Your task to perform on an android device: Open the map Image 0: 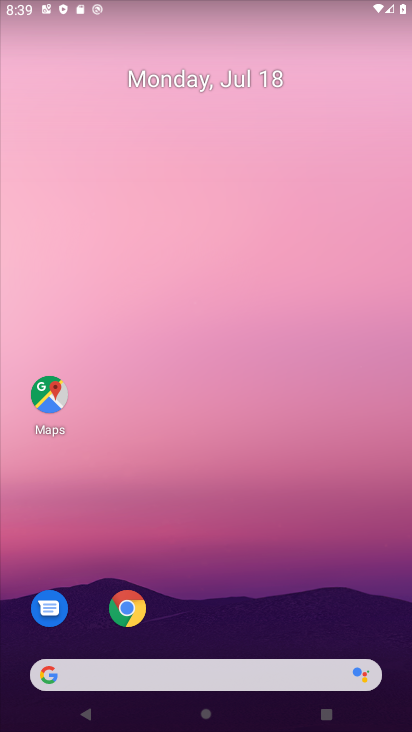
Step 0: drag from (230, 714) to (218, 130)
Your task to perform on an android device: Open the map Image 1: 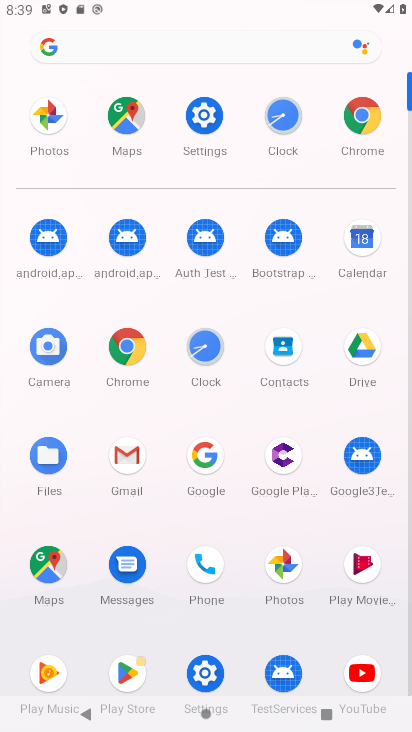
Step 1: click (56, 557)
Your task to perform on an android device: Open the map Image 2: 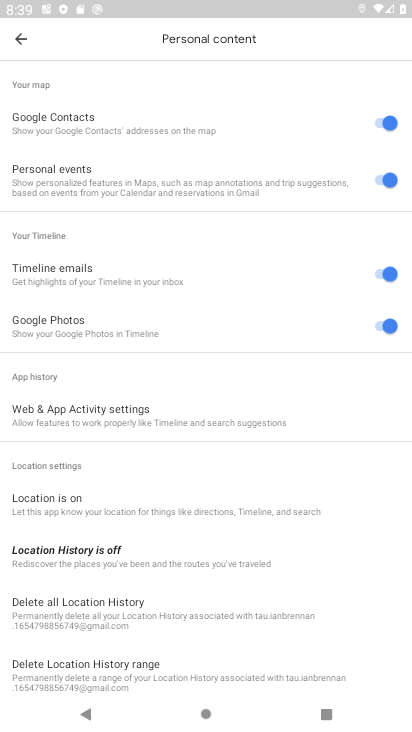
Step 2: task complete